Your task to perform on an android device: toggle improve location accuracy Image 0: 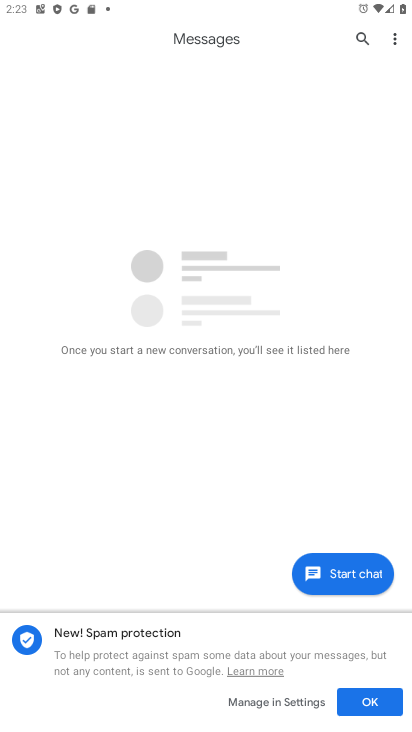
Step 0: press home button
Your task to perform on an android device: toggle improve location accuracy Image 1: 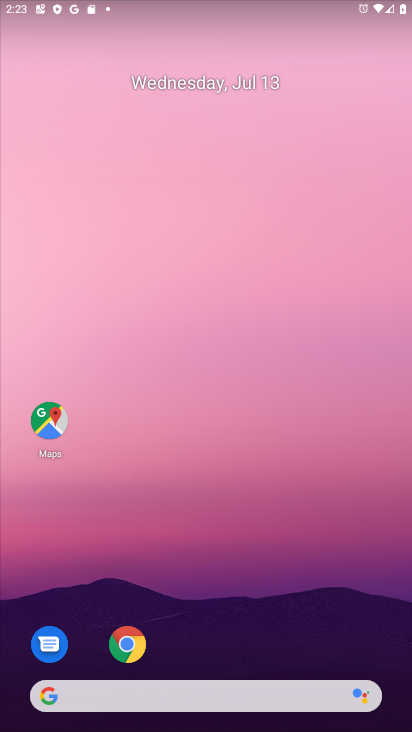
Step 1: drag from (177, 659) to (113, 143)
Your task to perform on an android device: toggle improve location accuracy Image 2: 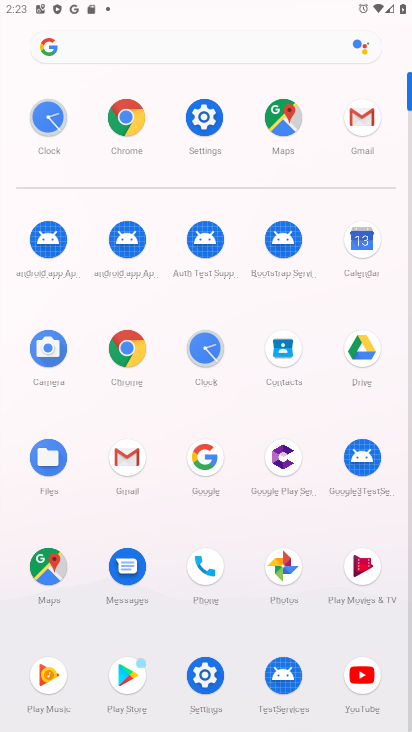
Step 2: click (212, 675)
Your task to perform on an android device: toggle improve location accuracy Image 3: 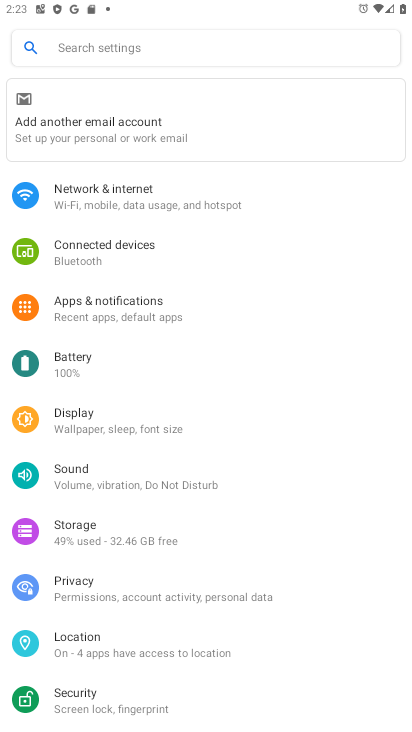
Step 3: drag from (137, 507) to (129, 237)
Your task to perform on an android device: toggle improve location accuracy Image 4: 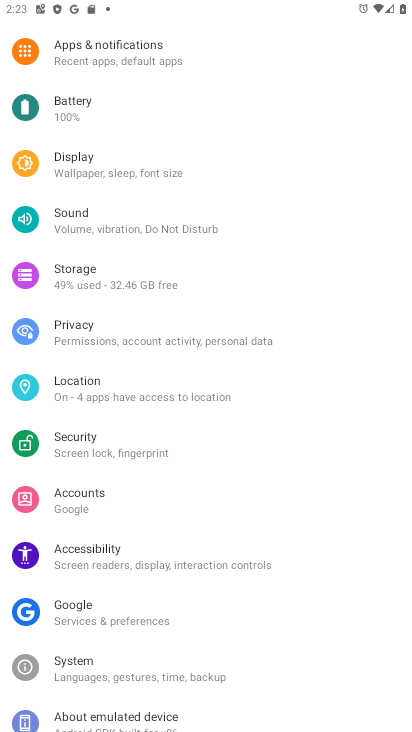
Step 4: click (79, 391)
Your task to perform on an android device: toggle improve location accuracy Image 5: 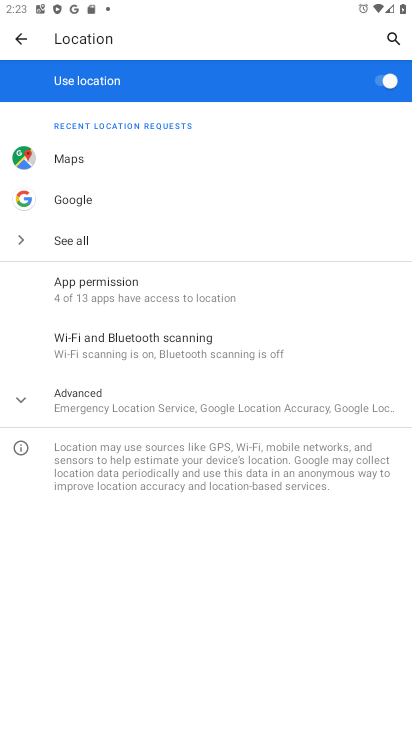
Step 5: click (44, 397)
Your task to perform on an android device: toggle improve location accuracy Image 6: 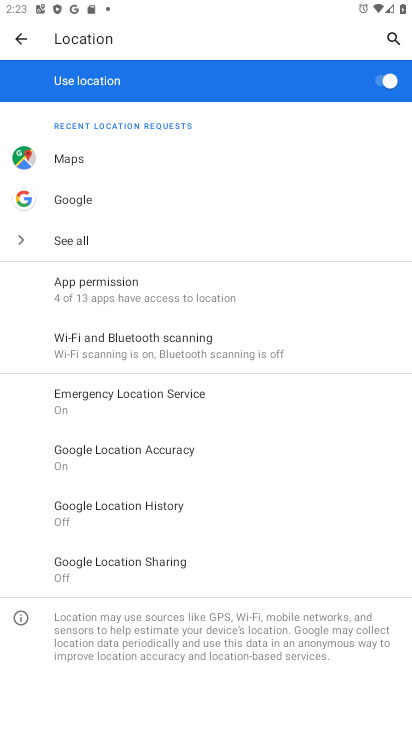
Step 6: click (113, 457)
Your task to perform on an android device: toggle improve location accuracy Image 7: 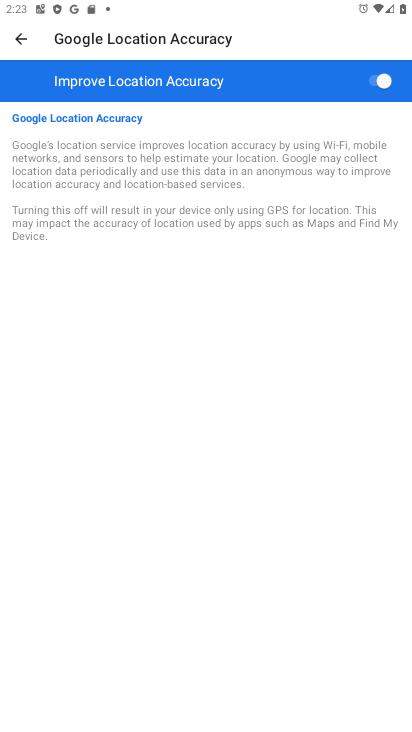
Step 7: click (382, 79)
Your task to perform on an android device: toggle improve location accuracy Image 8: 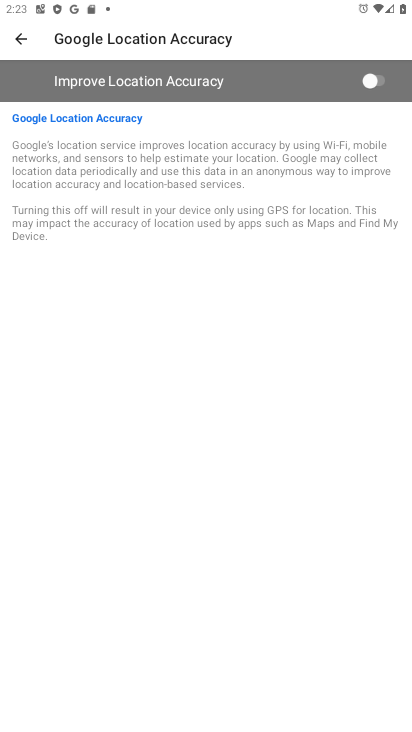
Step 8: task complete